Your task to perform on an android device: open sync settings in chrome Image 0: 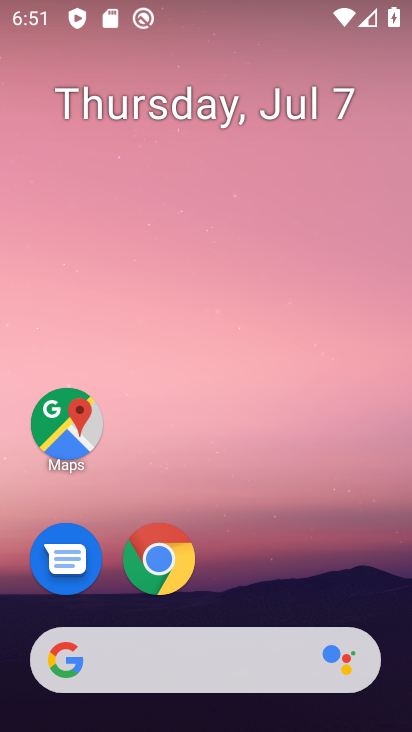
Step 0: click (156, 558)
Your task to perform on an android device: open sync settings in chrome Image 1: 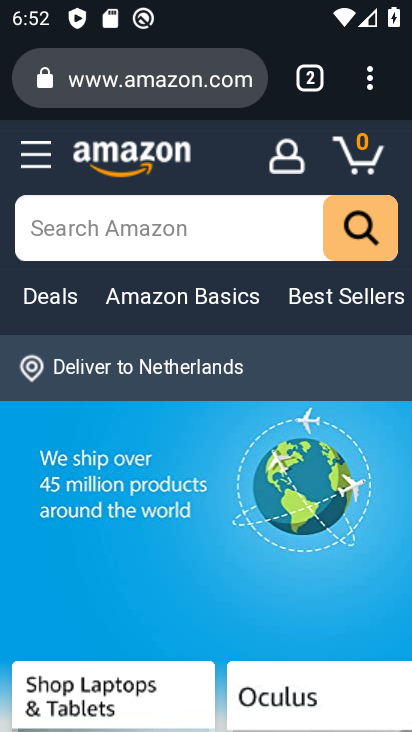
Step 1: click (369, 102)
Your task to perform on an android device: open sync settings in chrome Image 2: 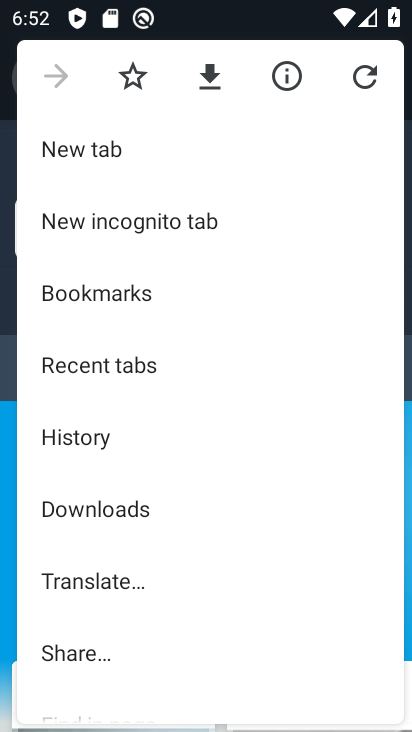
Step 2: drag from (144, 555) to (195, 251)
Your task to perform on an android device: open sync settings in chrome Image 3: 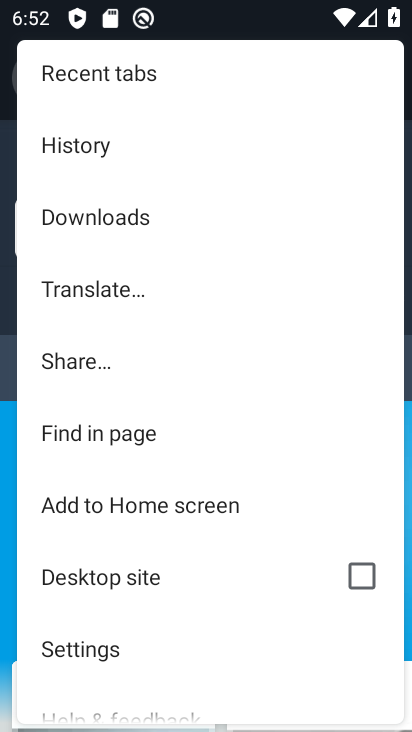
Step 3: drag from (147, 532) to (202, 225)
Your task to perform on an android device: open sync settings in chrome Image 4: 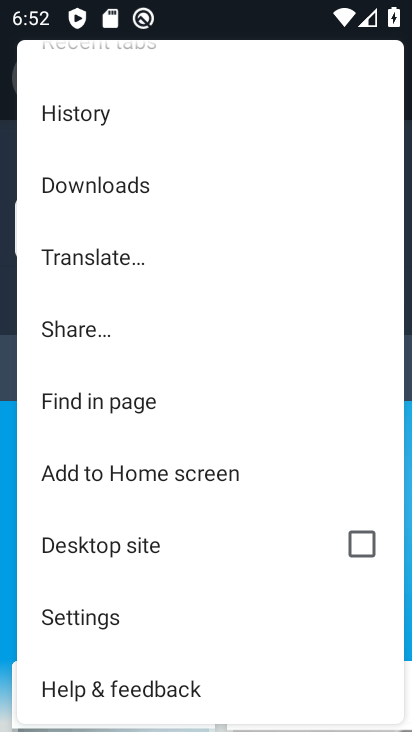
Step 4: click (109, 619)
Your task to perform on an android device: open sync settings in chrome Image 5: 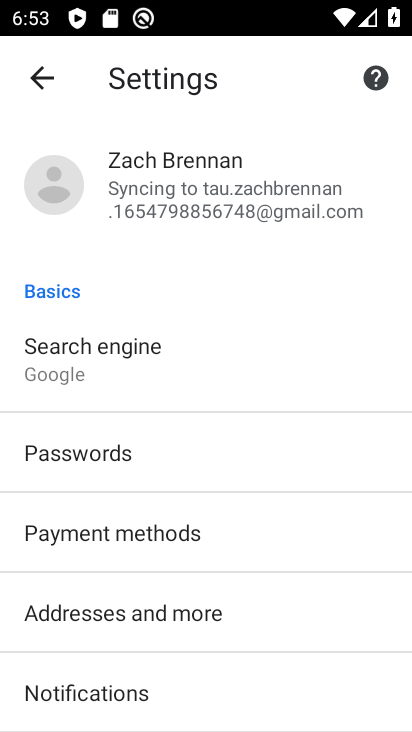
Step 5: click (139, 182)
Your task to perform on an android device: open sync settings in chrome Image 6: 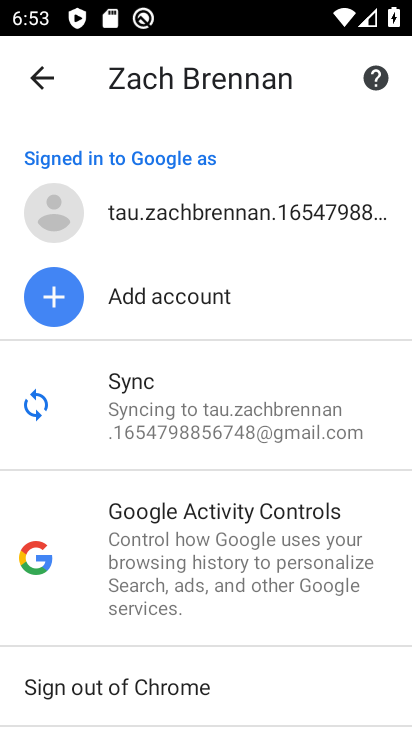
Step 6: click (200, 393)
Your task to perform on an android device: open sync settings in chrome Image 7: 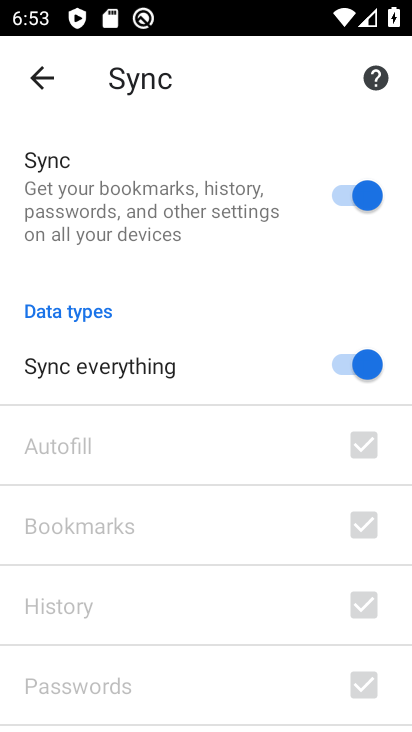
Step 7: task complete